Your task to perform on an android device: delete the emails in spam in the gmail app Image 0: 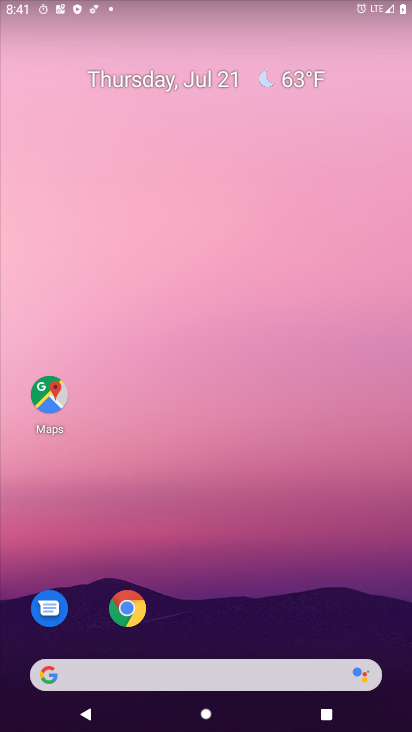
Step 0: press home button
Your task to perform on an android device: delete the emails in spam in the gmail app Image 1: 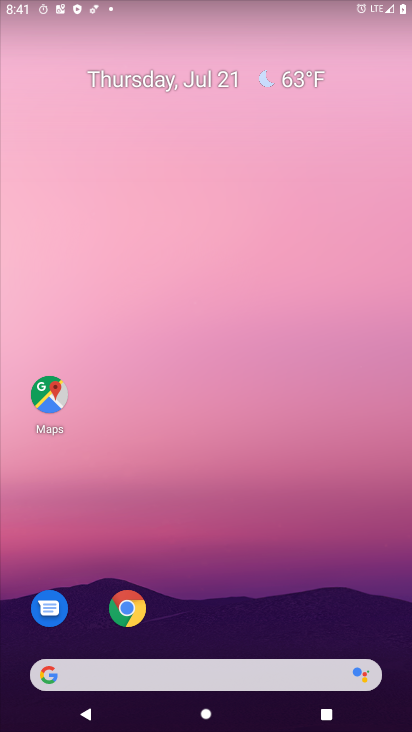
Step 1: drag from (227, 673) to (245, 15)
Your task to perform on an android device: delete the emails in spam in the gmail app Image 2: 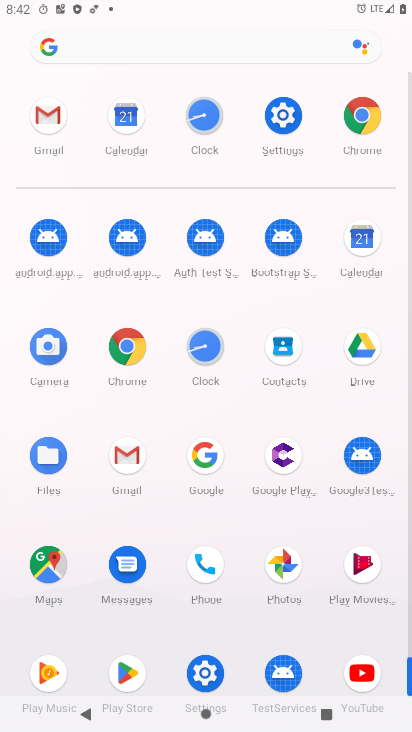
Step 2: click (116, 458)
Your task to perform on an android device: delete the emails in spam in the gmail app Image 3: 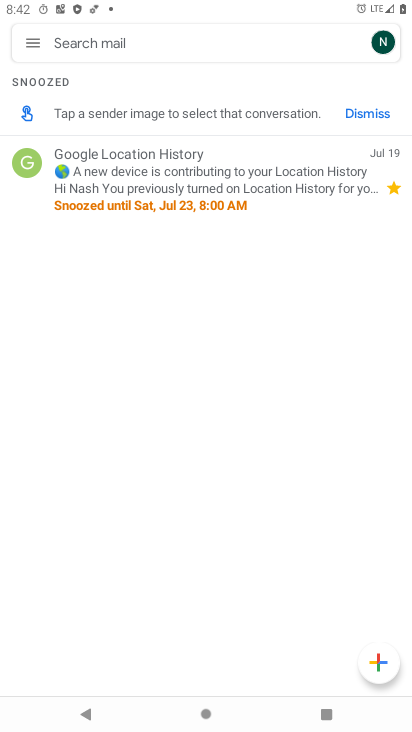
Step 3: click (271, 198)
Your task to perform on an android device: delete the emails in spam in the gmail app Image 4: 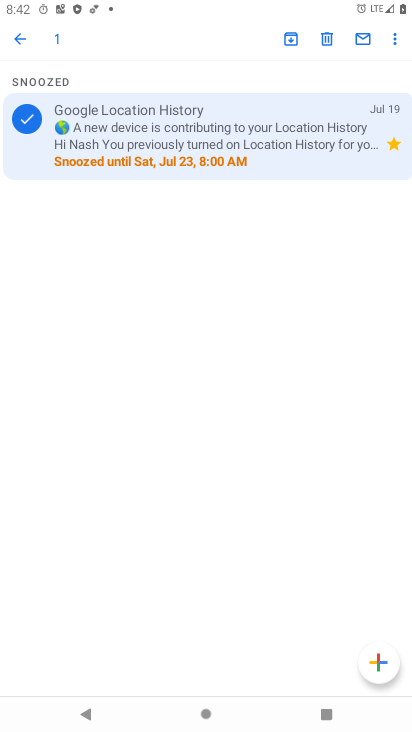
Step 4: click (325, 31)
Your task to perform on an android device: delete the emails in spam in the gmail app Image 5: 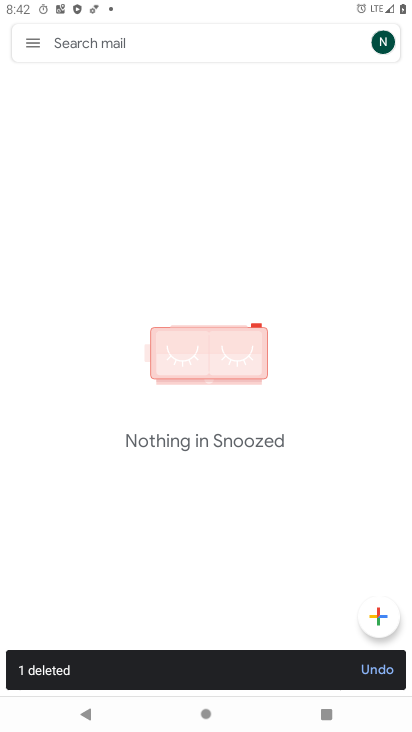
Step 5: task complete